Your task to perform on an android device: open app "Google Docs" (install if not already installed) Image 0: 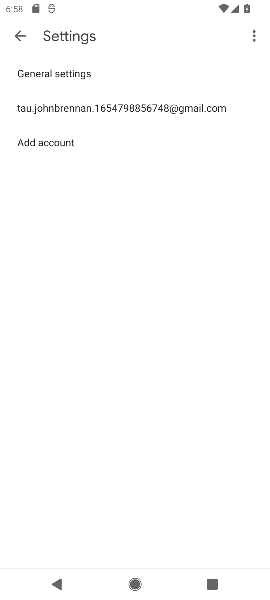
Step 0: press home button
Your task to perform on an android device: open app "Google Docs" (install if not already installed) Image 1: 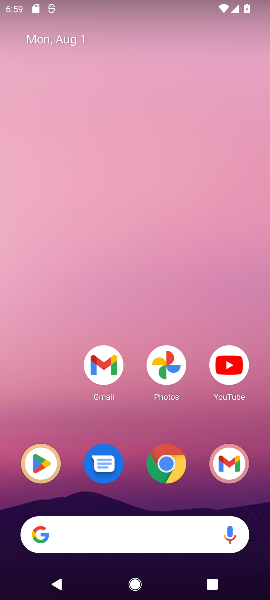
Step 1: click (94, 526)
Your task to perform on an android device: open app "Google Docs" (install if not already installed) Image 2: 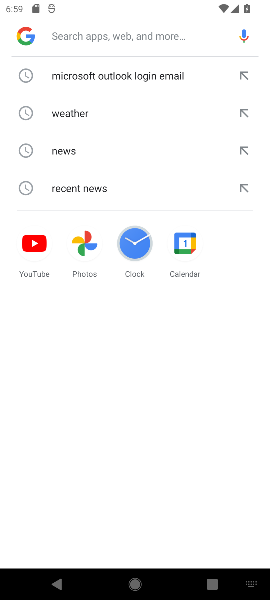
Step 2: type "google doc"
Your task to perform on an android device: open app "Google Docs" (install if not already installed) Image 3: 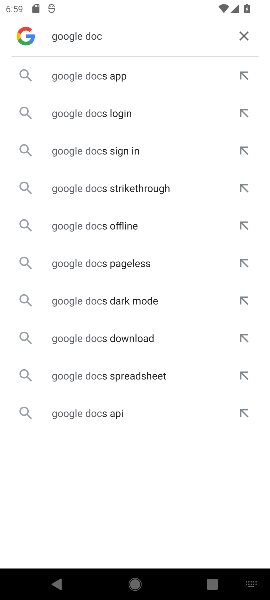
Step 3: click (110, 90)
Your task to perform on an android device: open app "Google Docs" (install if not already installed) Image 4: 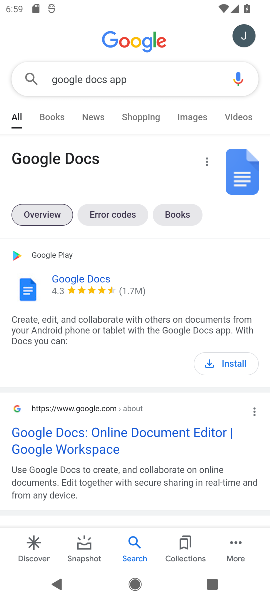
Step 4: click (218, 368)
Your task to perform on an android device: open app "Google Docs" (install if not already installed) Image 5: 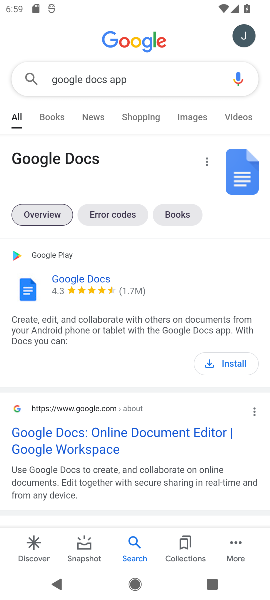
Step 5: click (218, 368)
Your task to perform on an android device: open app "Google Docs" (install if not already installed) Image 6: 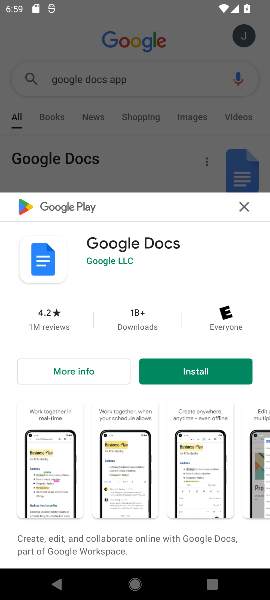
Step 6: click (193, 376)
Your task to perform on an android device: open app "Google Docs" (install if not already installed) Image 7: 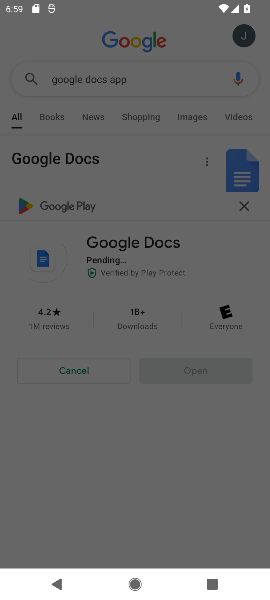
Step 7: task complete